Your task to perform on an android device: Open privacy settings Image 0: 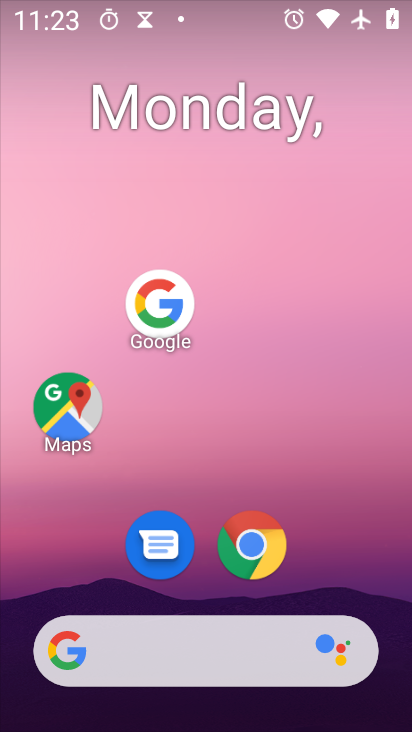
Step 0: press home button
Your task to perform on an android device: Open privacy settings Image 1: 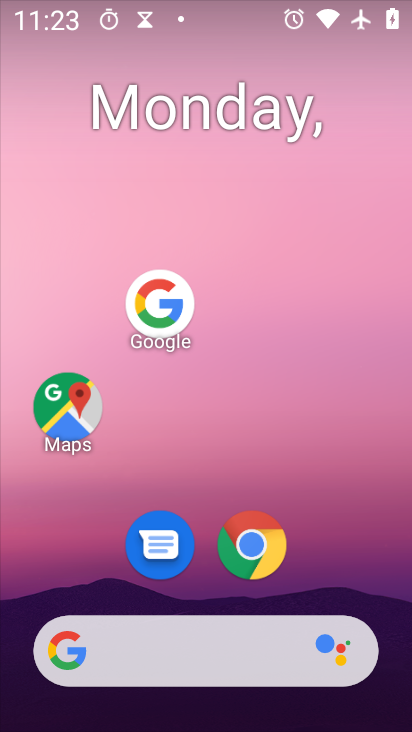
Step 1: drag from (219, 647) to (303, 155)
Your task to perform on an android device: Open privacy settings Image 2: 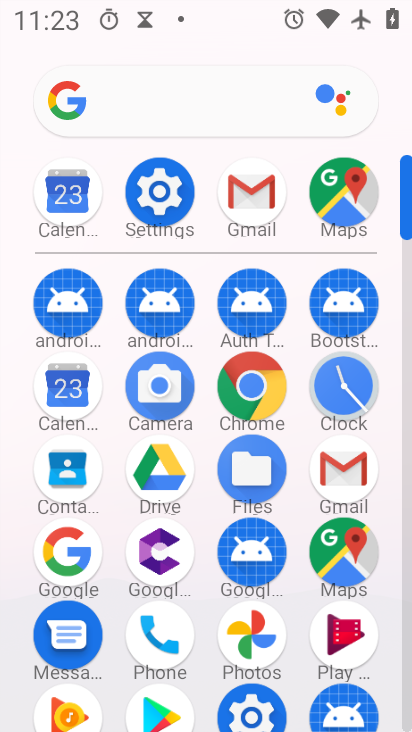
Step 2: click (156, 196)
Your task to perform on an android device: Open privacy settings Image 3: 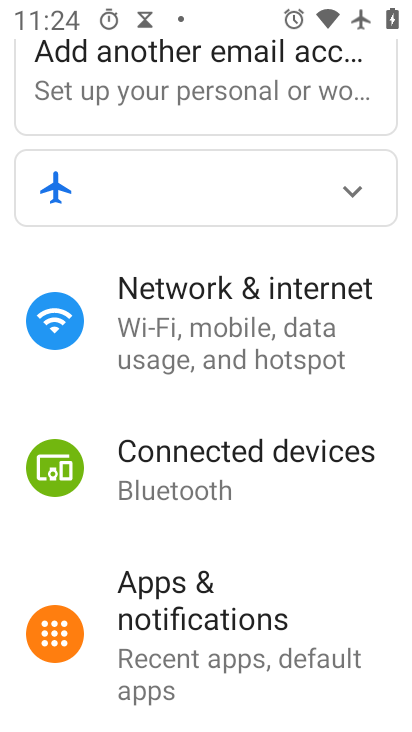
Step 3: click (267, 134)
Your task to perform on an android device: Open privacy settings Image 4: 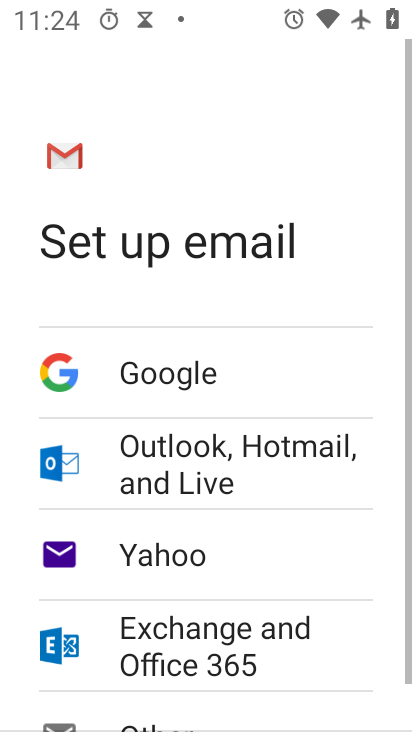
Step 4: drag from (245, 559) to (234, 326)
Your task to perform on an android device: Open privacy settings Image 5: 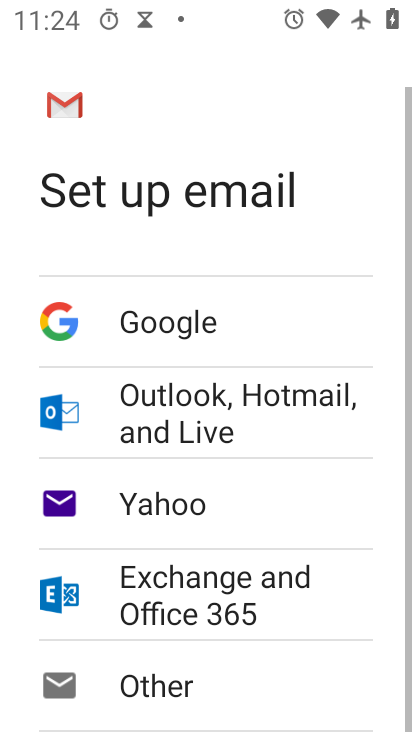
Step 5: press back button
Your task to perform on an android device: Open privacy settings Image 6: 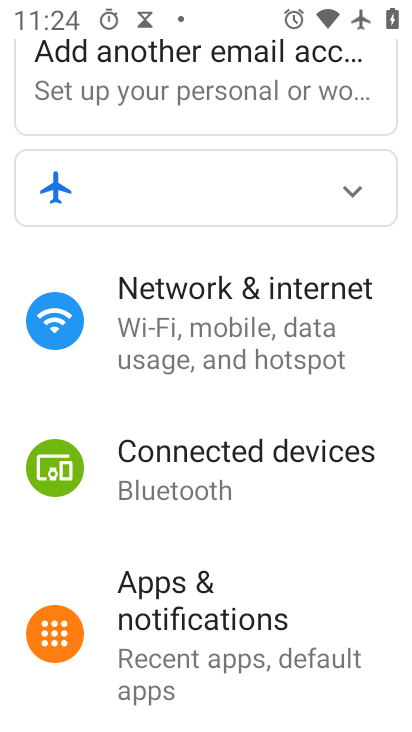
Step 6: drag from (235, 669) to (232, 240)
Your task to perform on an android device: Open privacy settings Image 7: 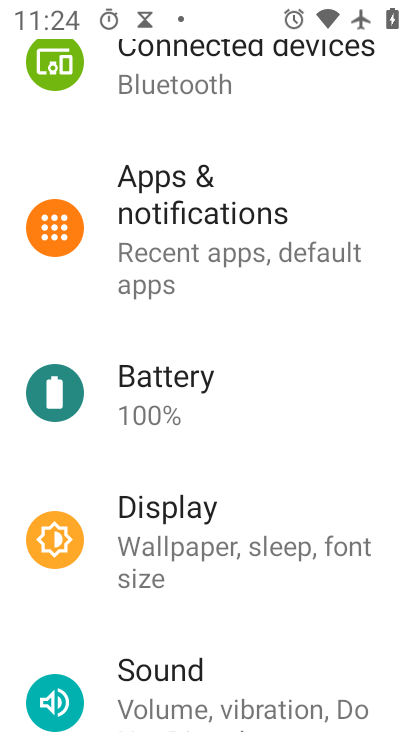
Step 7: drag from (246, 625) to (283, 127)
Your task to perform on an android device: Open privacy settings Image 8: 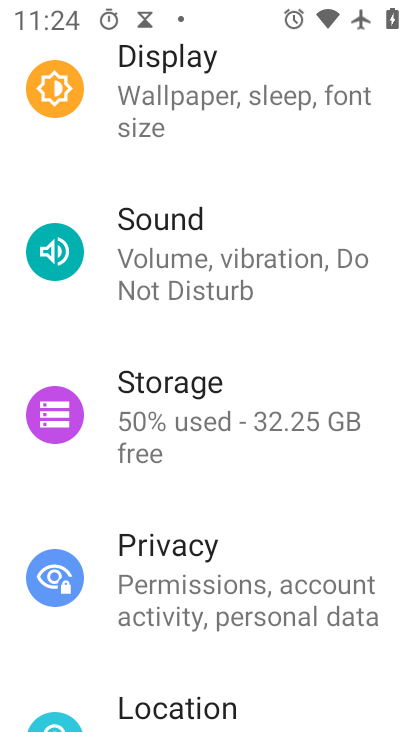
Step 8: click (170, 560)
Your task to perform on an android device: Open privacy settings Image 9: 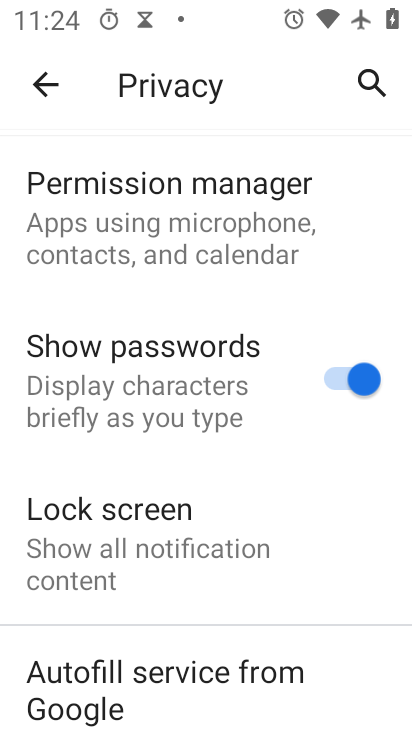
Step 9: task complete